Your task to perform on an android device: turn off priority inbox in the gmail app Image 0: 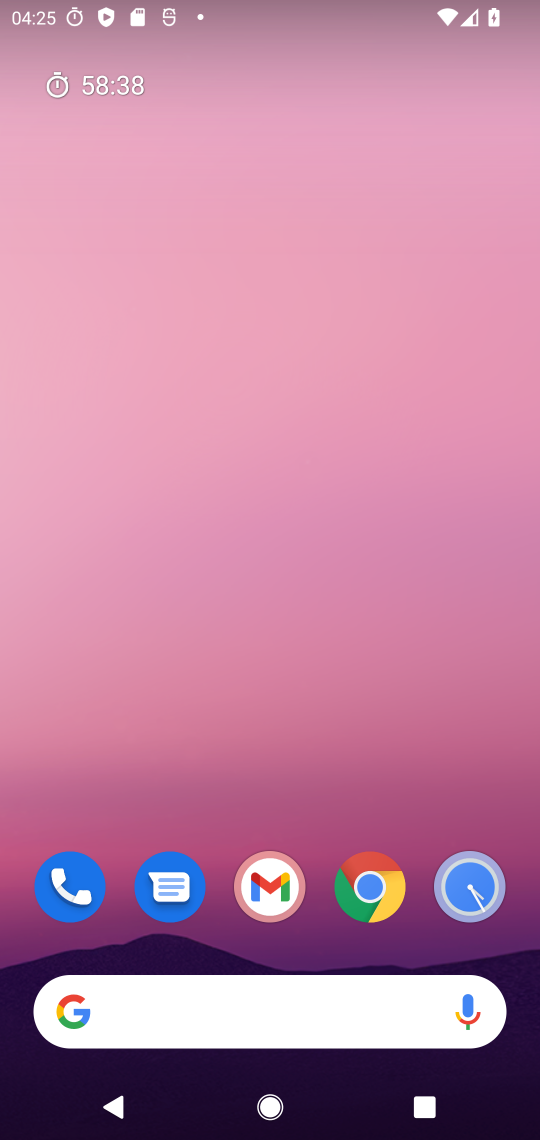
Step 0: press home button
Your task to perform on an android device: turn off priority inbox in the gmail app Image 1: 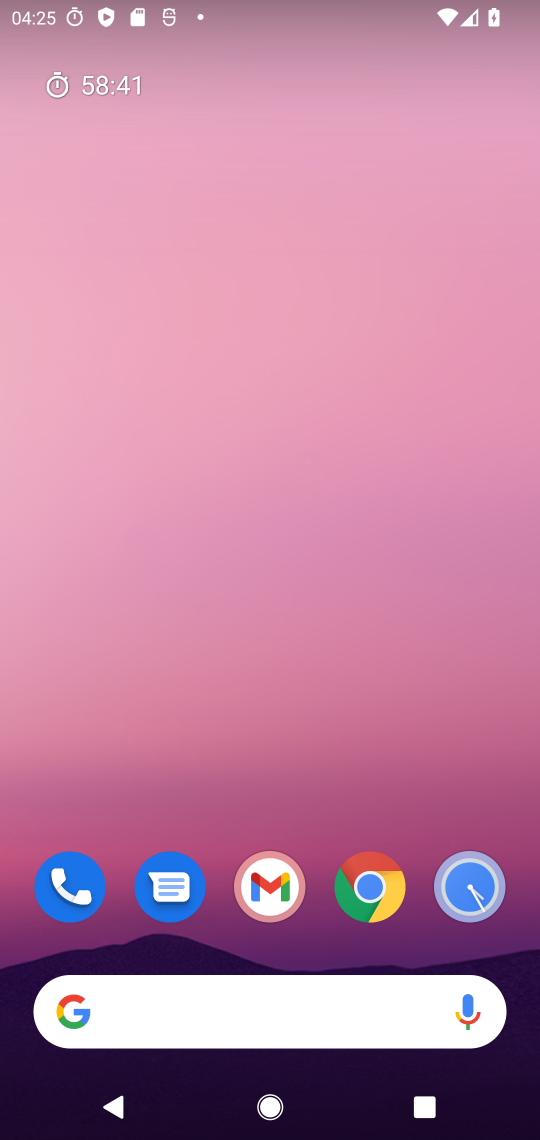
Step 1: drag from (412, 804) to (467, 230)
Your task to perform on an android device: turn off priority inbox in the gmail app Image 2: 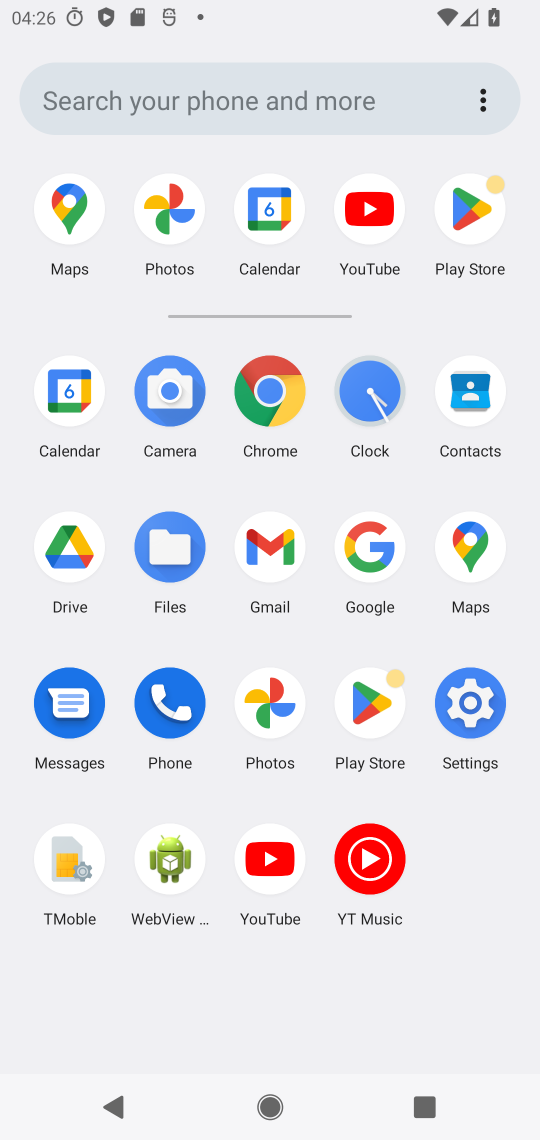
Step 2: click (261, 551)
Your task to perform on an android device: turn off priority inbox in the gmail app Image 3: 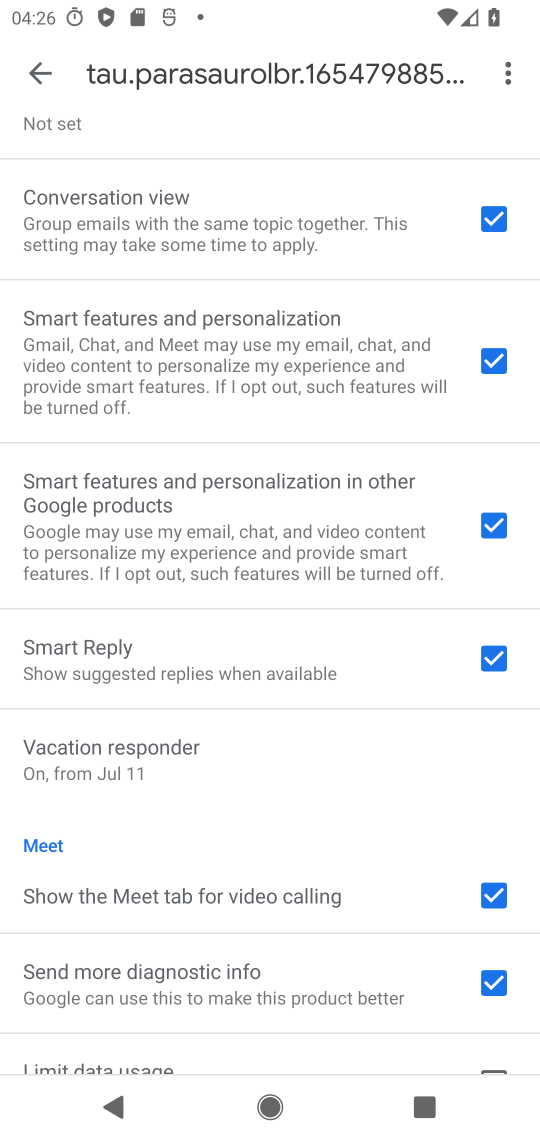
Step 3: drag from (364, 409) to (371, 554)
Your task to perform on an android device: turn off priority inbox in the gmail app Image 4: 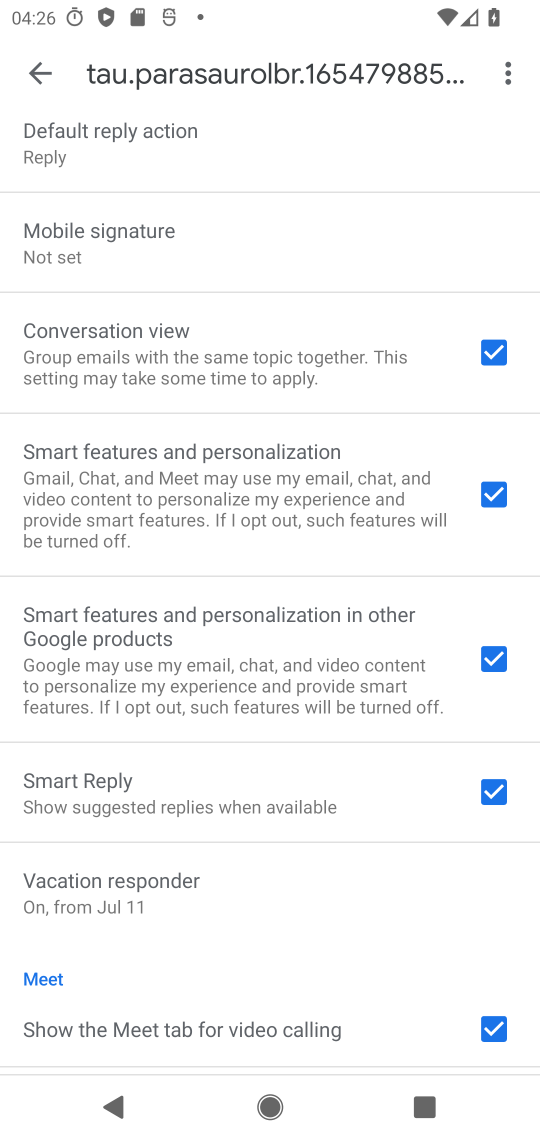
Step 4: drag from (426, 285) to (433, 479)
Your task to perform on an android device: turn off priority inbox in the gmail app Image 5: 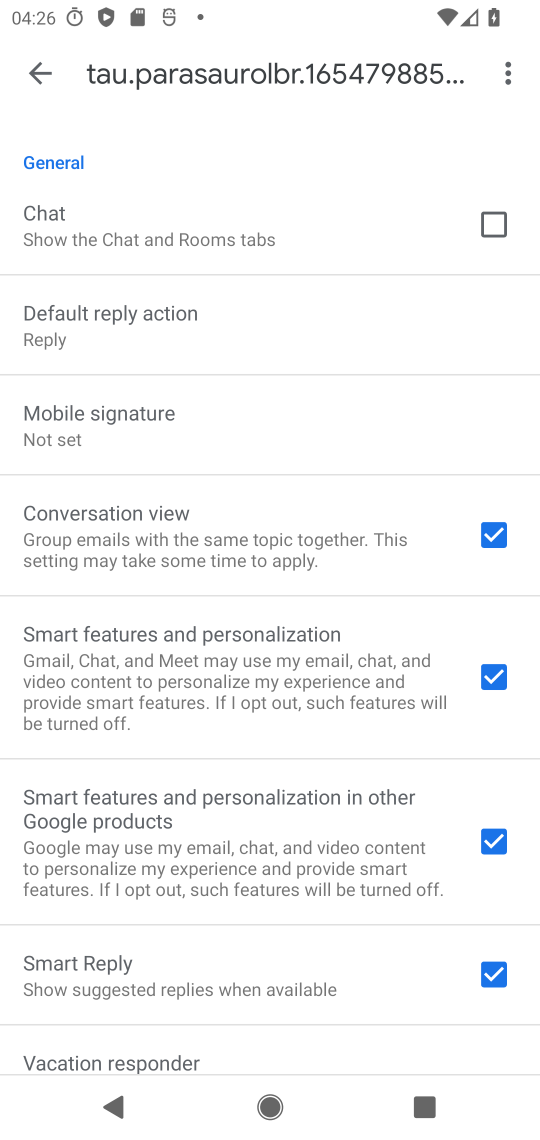
Step 5: drag from (391, 240) to (404, 518)
Your task to perform on an android device: turn off priority inbox in the gmail app Image 6: 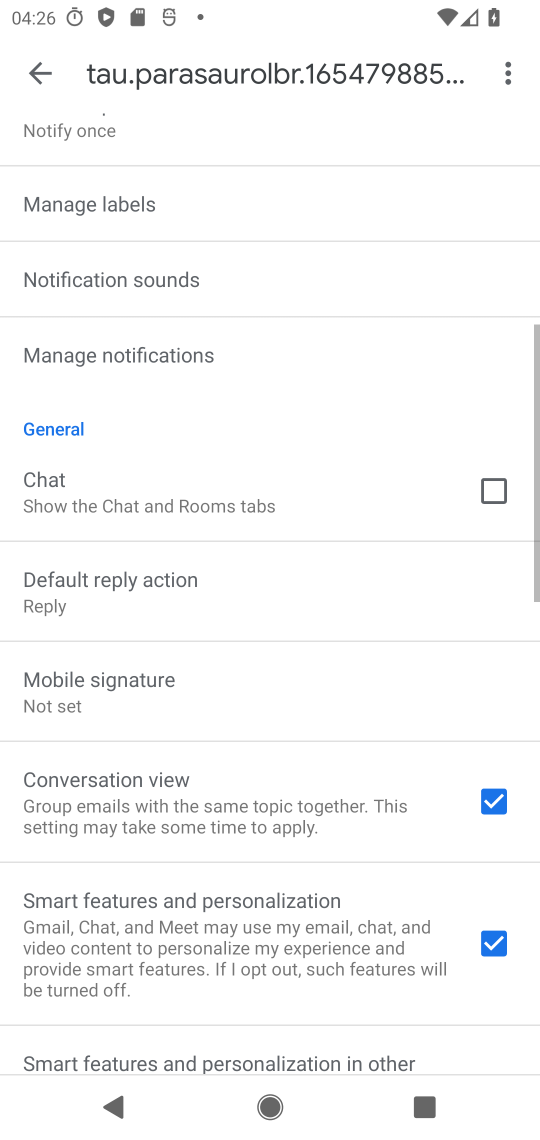
Step 6: drag from (349, 182) to (370, 425)
Your task to perform on an android device: turn off priority inbox in the gmail app Image 7: 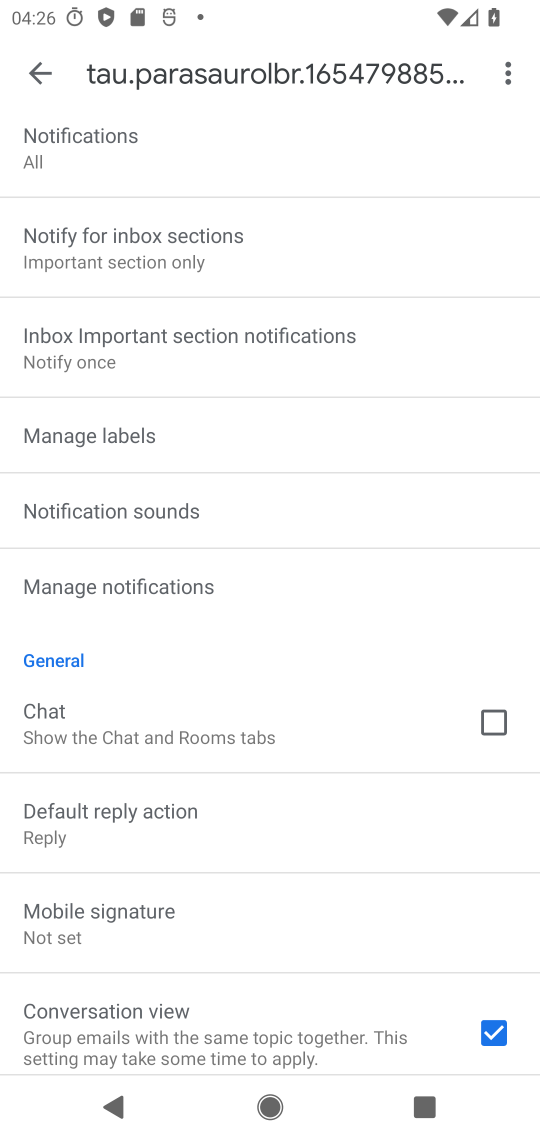
Step 7: drag from (351, 155) to (377, 410)
Your task to perform on an android device: turn off priority inbox in the gmail app Image 8: 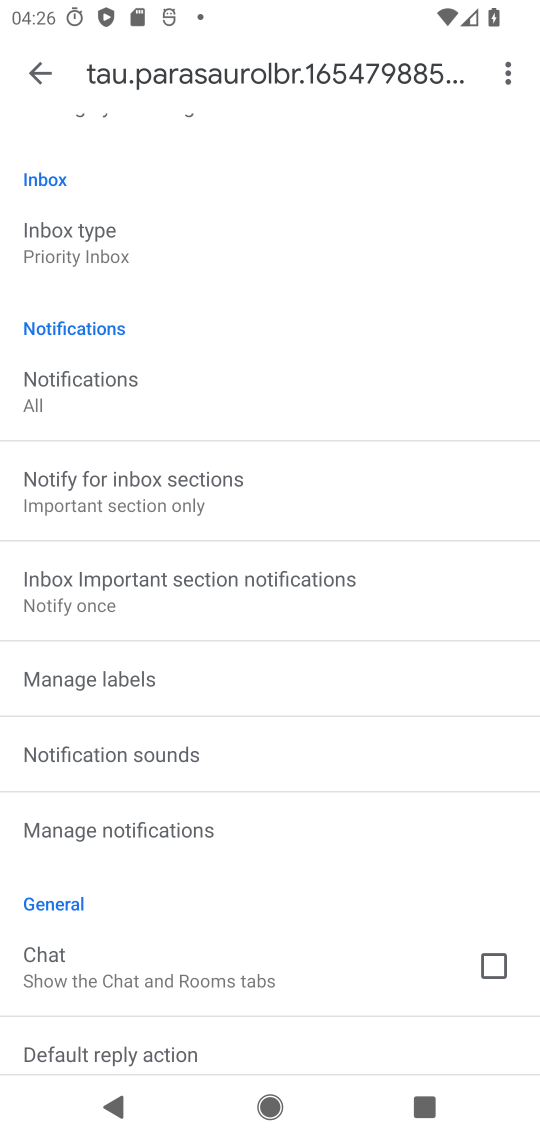
Step 8: drag from (339, 186) to (372, 484)
Your task to perform on an android device: turn off priority inbox in the gmail app Image 9: 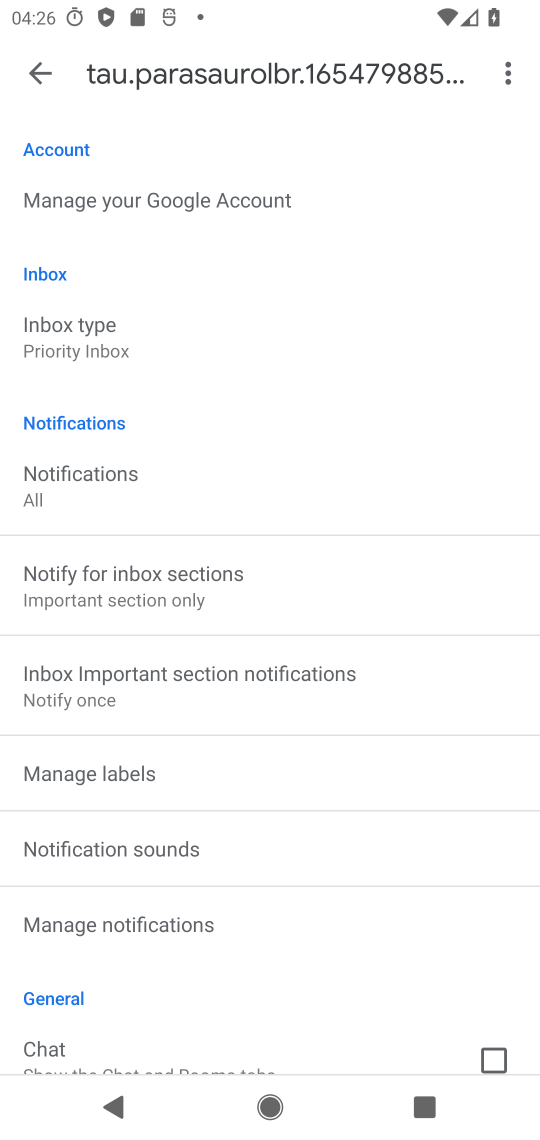
Step 9: click (134, 356)
Your task to perform on an android device: turn off priority inbox in the gmail app Image 10: 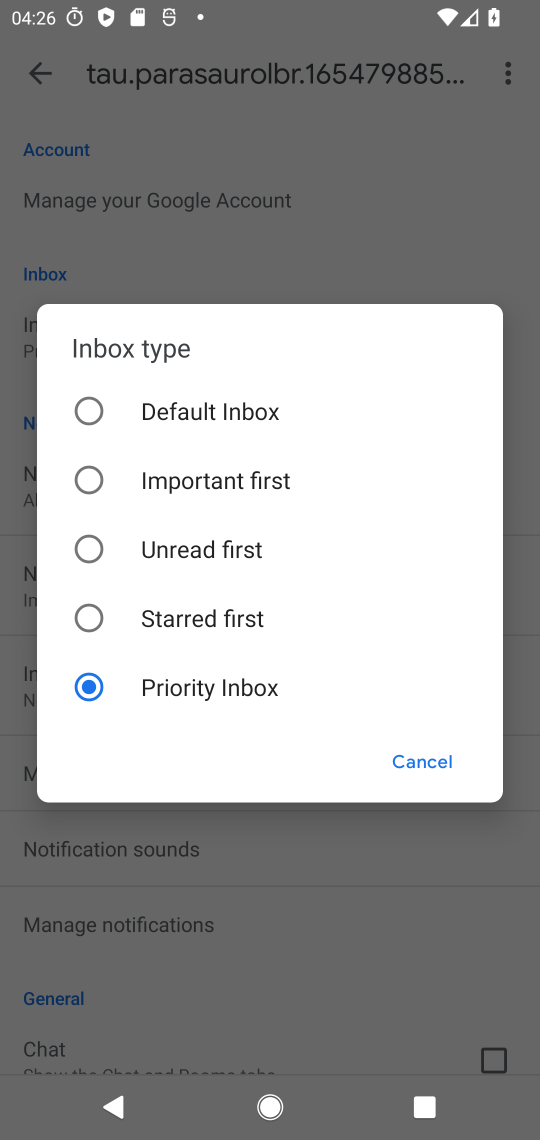
Step 10: click (243, 397)
Your task to perform on an android device: turn off priority inbox in the gmail app Image 11: 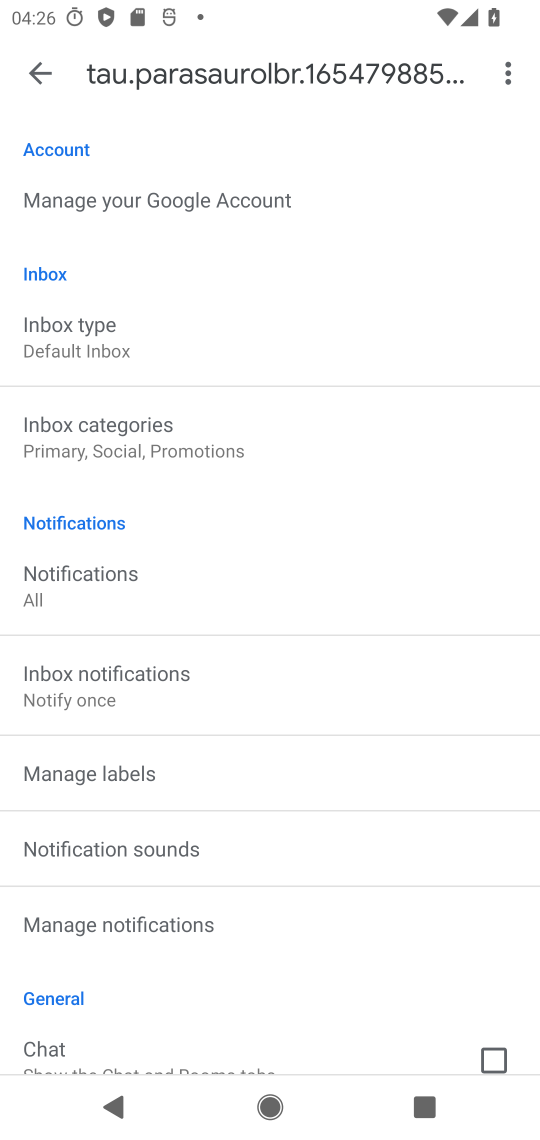
Step 11: task complete